Your task to perform on an android device: turn pop-ups on in chrome Image 0: 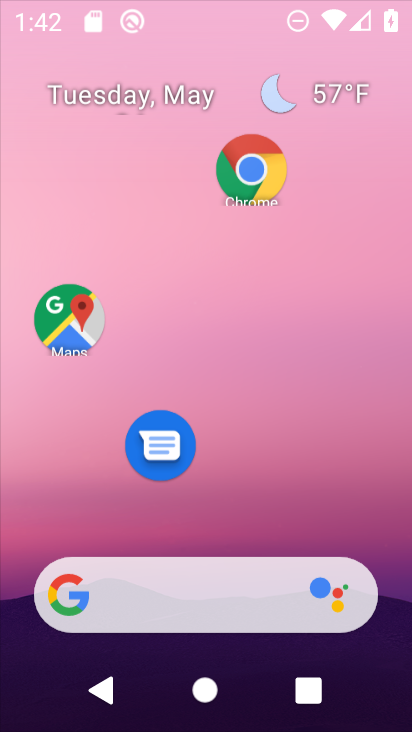
Step 0: drag from (230, 712) to (229, 193)
Your task to perform on an android device: turn pop-ups on in chrome Image 1: 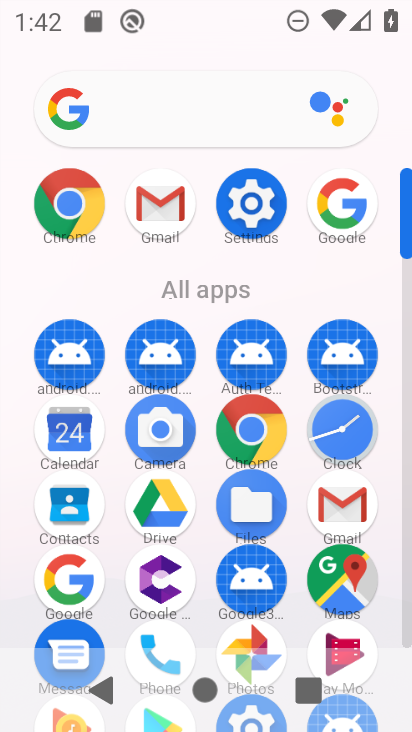
Step 1: click (257, 425)
Your task to perform on an android device: turn pop-ups on in chrome Image 2: 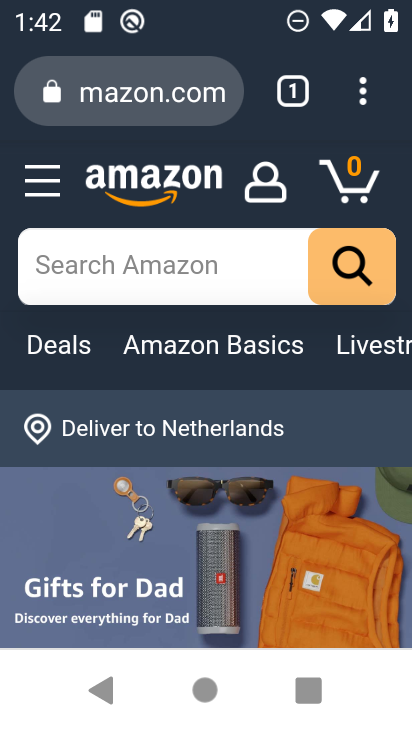
Step 2: click (362, 102)
Your task to perform on an android device: turn pop-ups on in chrome Image 3: 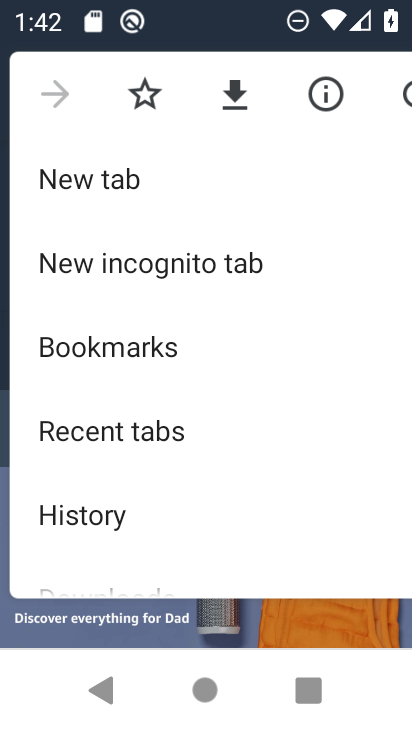
Step 3: drag from (225, 533) to (242, 214)
Your task to perform on an android device: turn pop-ups on in chrome Image 4: 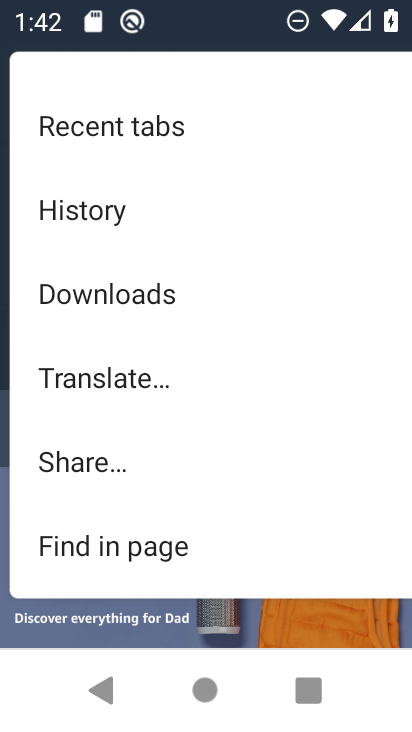
Step 4: drag from (144, 531) to (175, 180)
Your task to perform on an android device: turn pop-ups on in chrome Image 5: 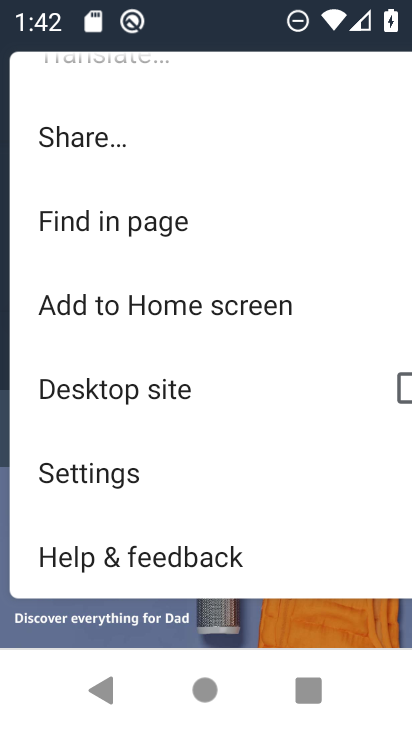
Step 5: click (106, 473)
Your task to perform on an android device: turn pop-ups on in chrome Image 6: 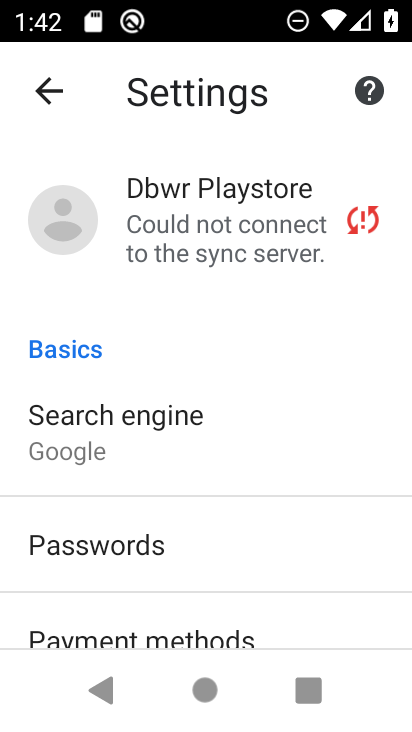
Step 6: drag from (141, 617) to (156, 259)
Your task to perform on an android device: turn pop-ups on in chrome Image 7: 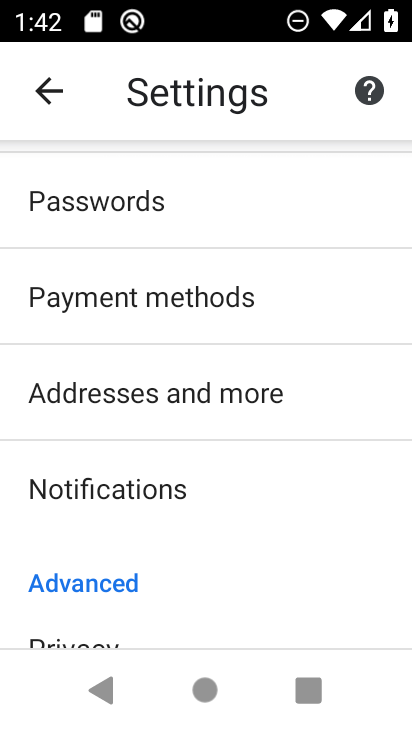
Step 7: drag from (165, 623) to (229, 300)
Your task to perform on an android device: turn pop-ups on in chrome Image 8: 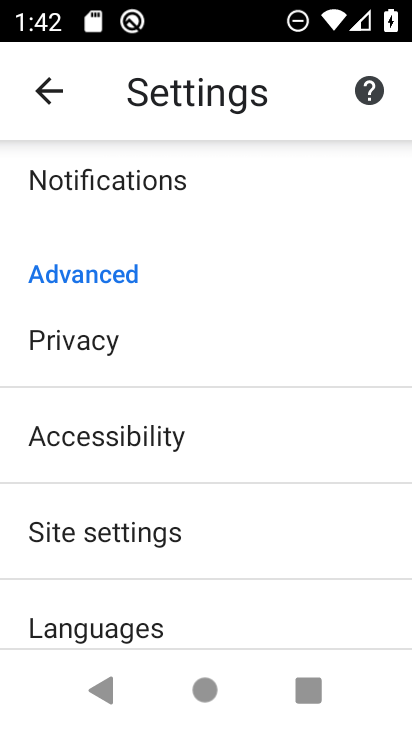
Step 8: click (138, 529)
Your task to perform on an android device: turn pop-ups on in chrome Image 9: 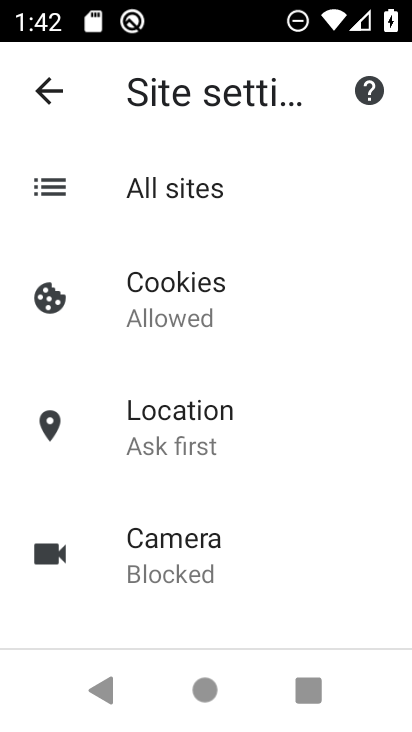
Step 9: drag from (169, 599) to (184, 244)
Your task to perform on an android device: turn pop-ups on in chrome Image 10: 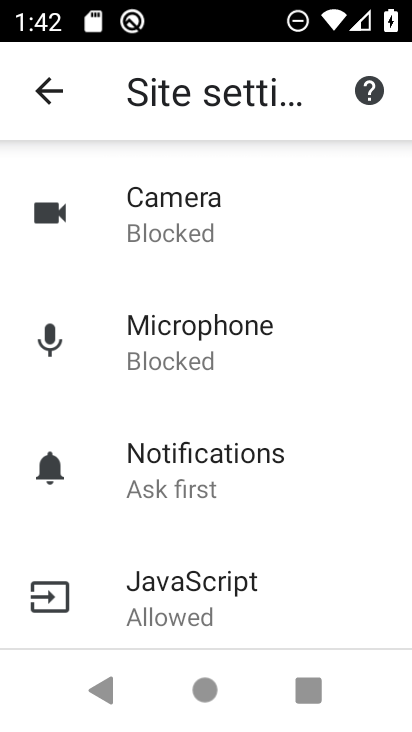
Step 10: drag from (197, 613) to (196, 321)
Your task to perform on an android device: turn pop-ups on in chrome Image 11: 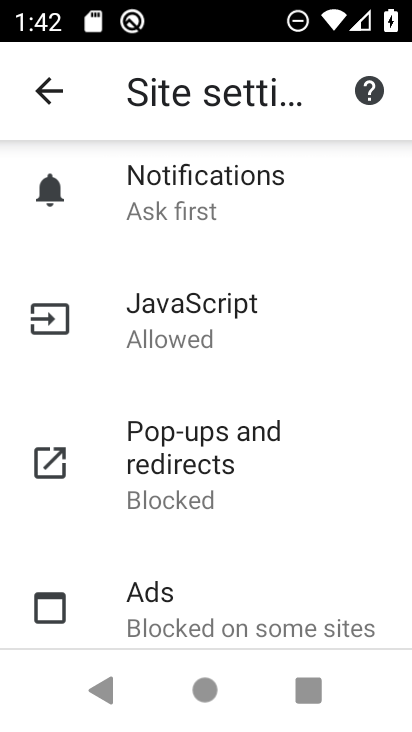
Step 11: drag from (202, 608) to (210, 457)
Your task to perform on an android device: turn pop-ups on in chrome Image 12: 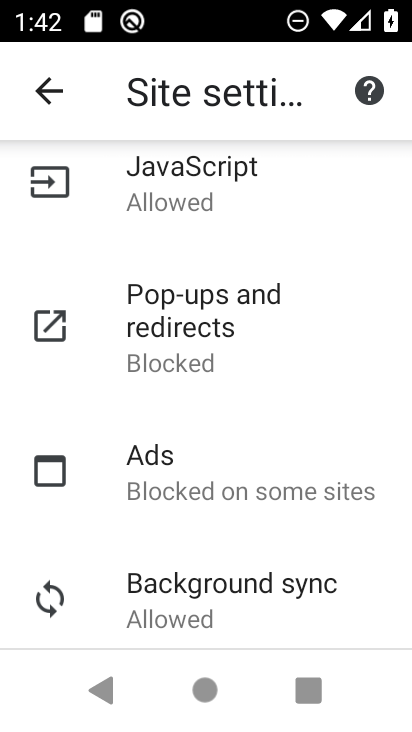
Step 12: click (184, 325)
Your task to perform on an android device: turn pop-ups on in chrome Image 13: 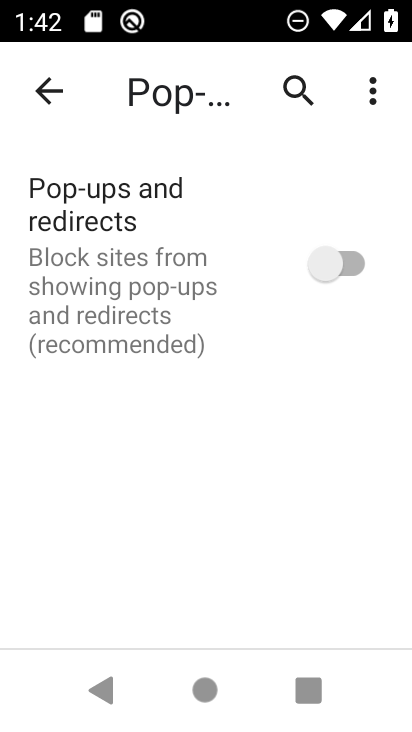
Step 13: click (353, 263)
Your task to perform on an android device: turn pop-ups on in chrome Image 14: 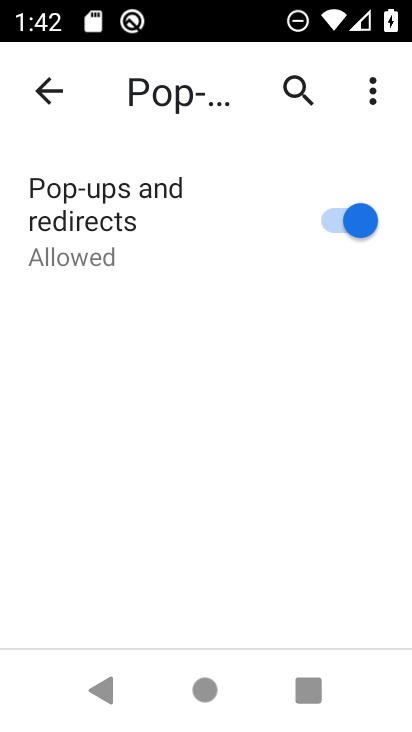
Step 14: task complete